Your task to perform on an android device: What's the weather going to be tomorrow? Image 0: 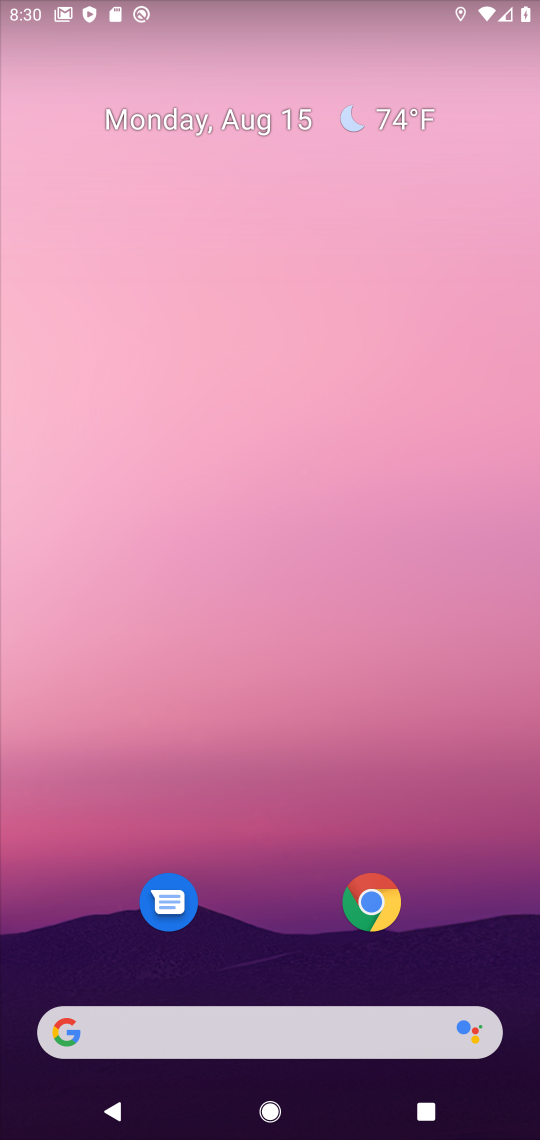
Step 0: drag from (503, 892) to (343, 24)
Your task to perform on an android device: What's the weather going to be tomorrow? Image 1: 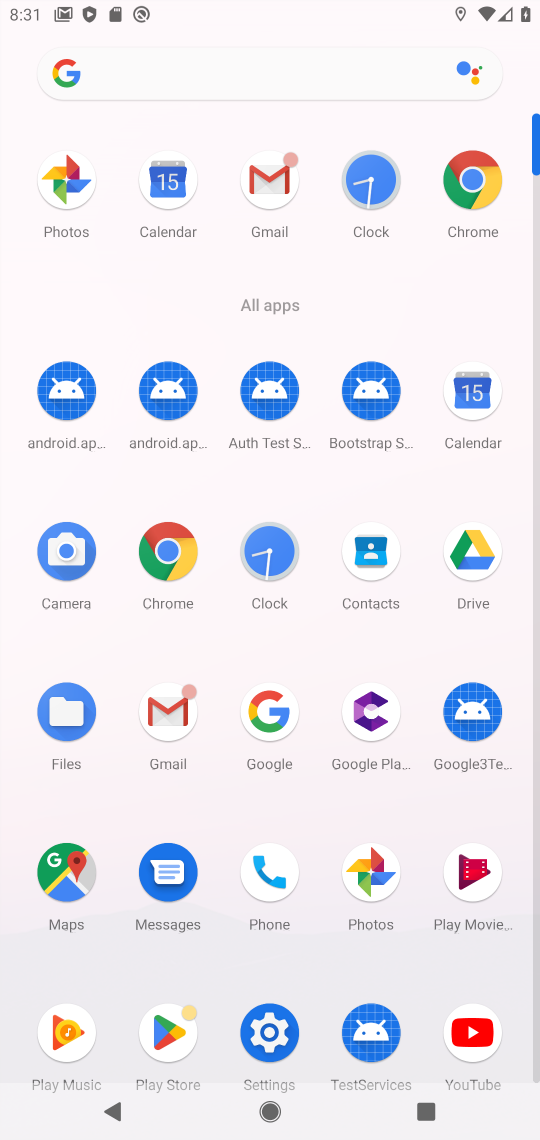
Step 1: click (287, 714)
Your task to perform on an android device: What's the weather going to be tomorrow? Image 2: 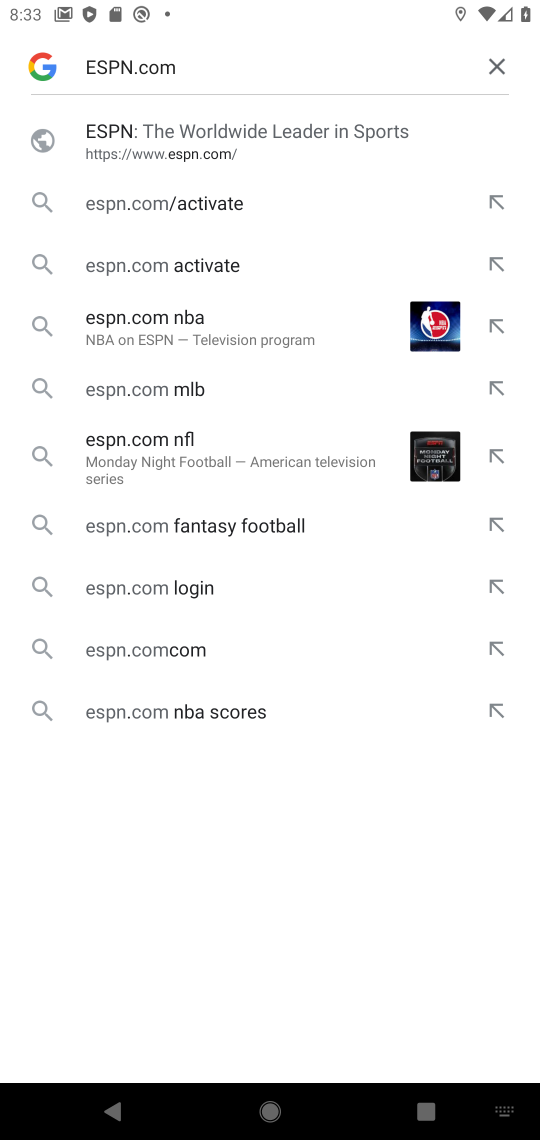
Step 2: click (486, 62)
Your task to perform on an android device: What's the weather going to be tomorrow? Image 3: 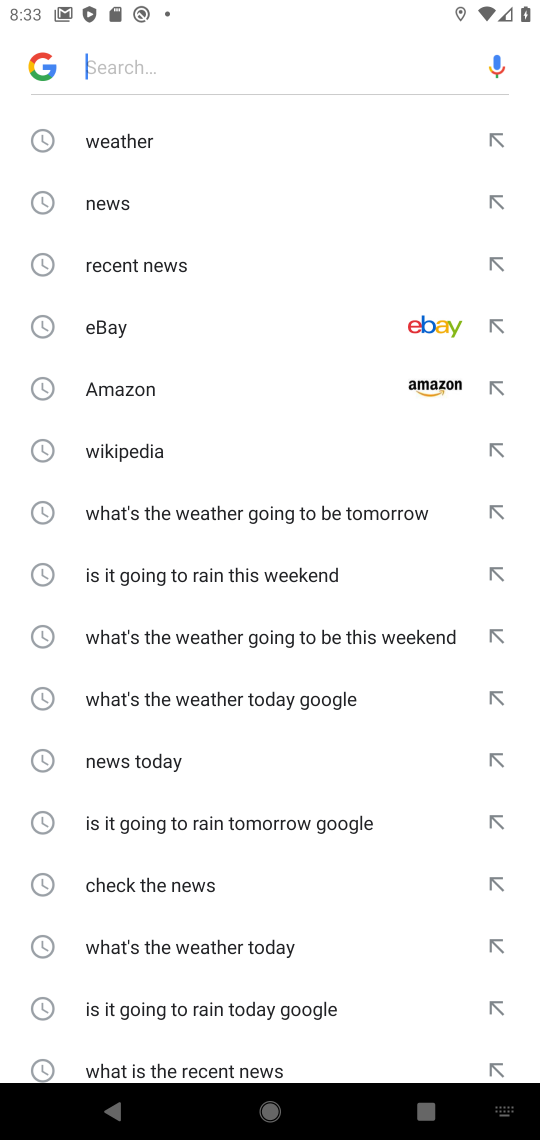
Step 3: click (237, 510)
Your task to perform on an android device: What's the weather going to be tomorrow? Image 4: 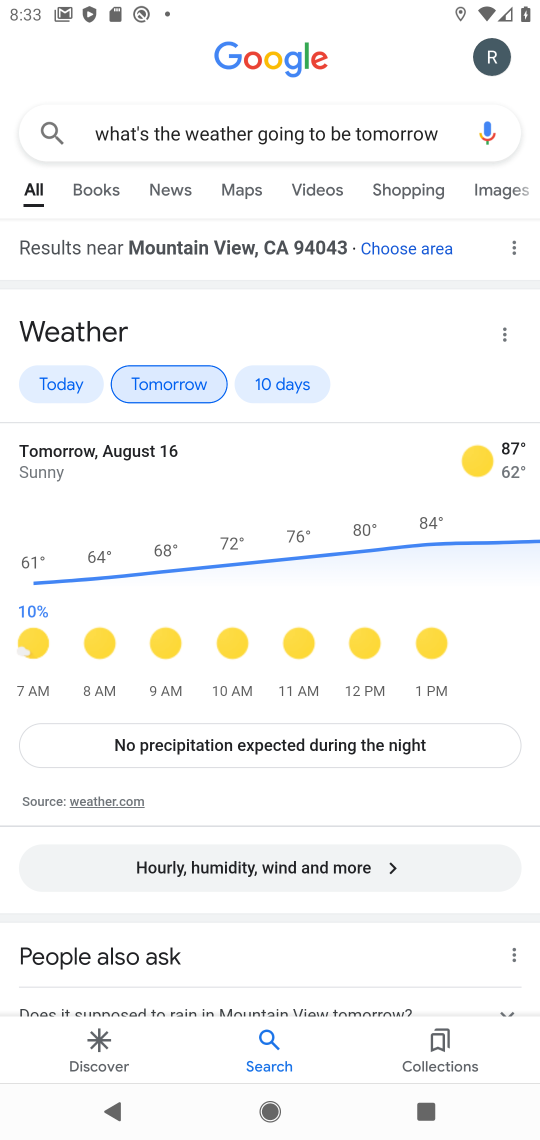
Step 4: task complete